Your task to perform on an android device: Open calendar and show me the fourth week of next month Image 0: 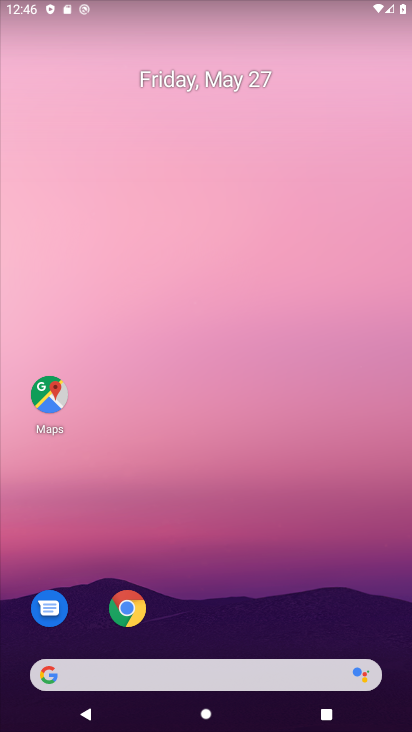
Step 0: drag from (282, 667) to (335, 460)
Your task to perform on an android device: Open calendar and show me the fourth week of next month Image 1: 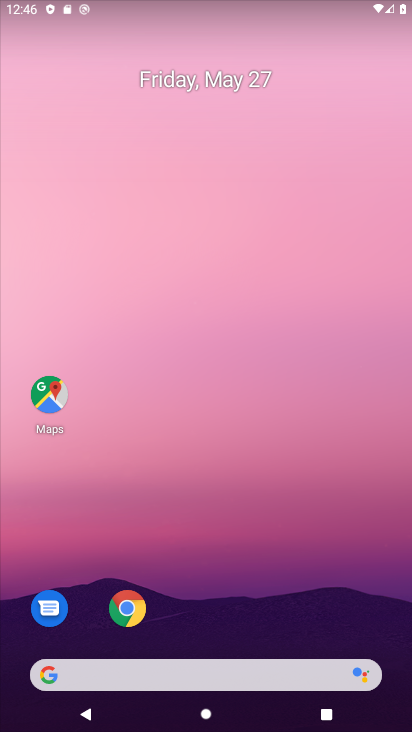
Step 1: drag from (213, 631) to (310, 163)
Your task to perform on an android device: Open calendar and show me the fourth week of next month Image 2: 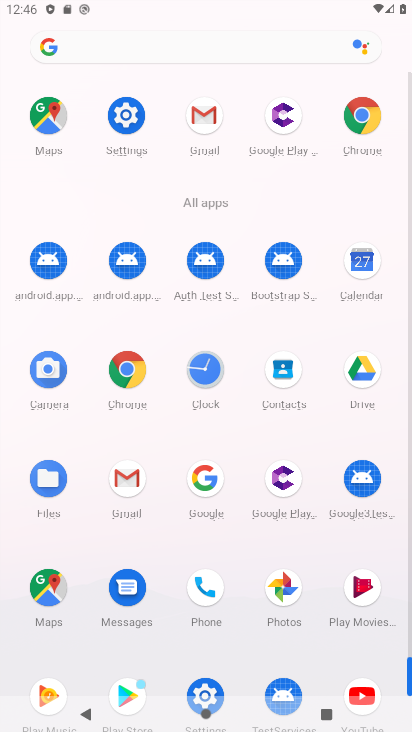
Step 2: click (370, 266)
Your task to perform on an android device: Open calendar and show me the fourth week of next month Image 3: 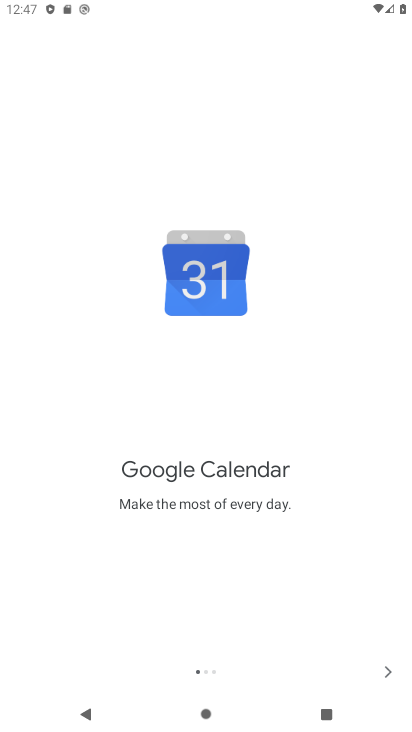
Step 3: click (381, 678)
Your task to perform on an android device: Open calendar and show me the fourth week of next month Image 4: 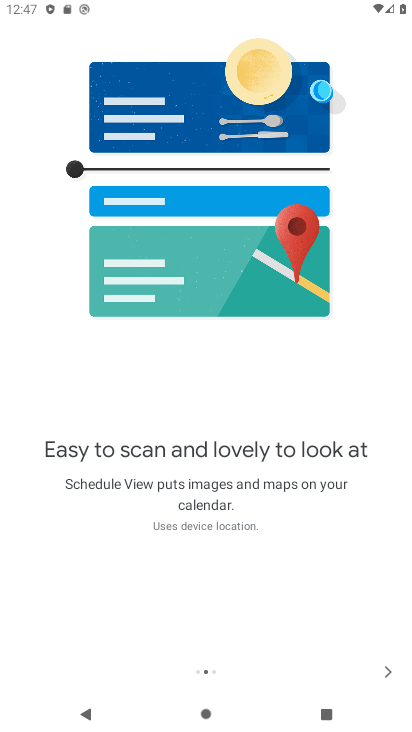
Step 4: click (381, 678)
Your task to perform on an android device: Open calendar and show me the fourth week of next month Image 5: 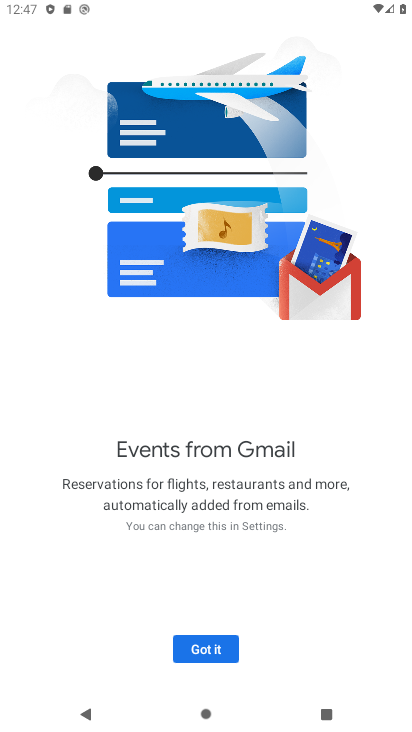
Step 5: click (226, 652)
Your task to perform on an android device: Open calendar and show me the fourth week of next month Image 6: 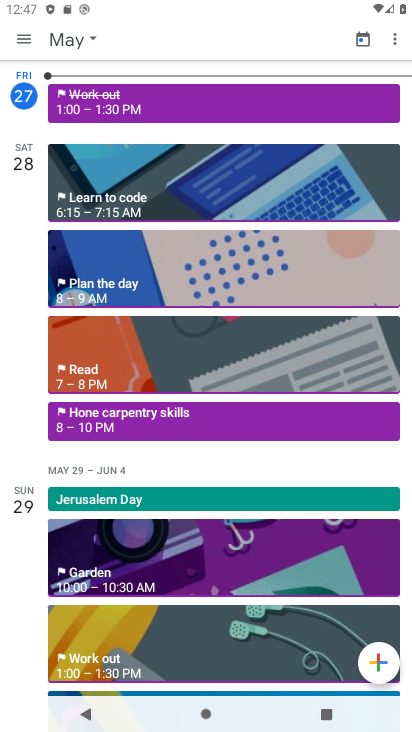
Step 6: click (87, 33)
Your task to perform on an android device: Open calendar and show me the fourth week of next month Image 7: 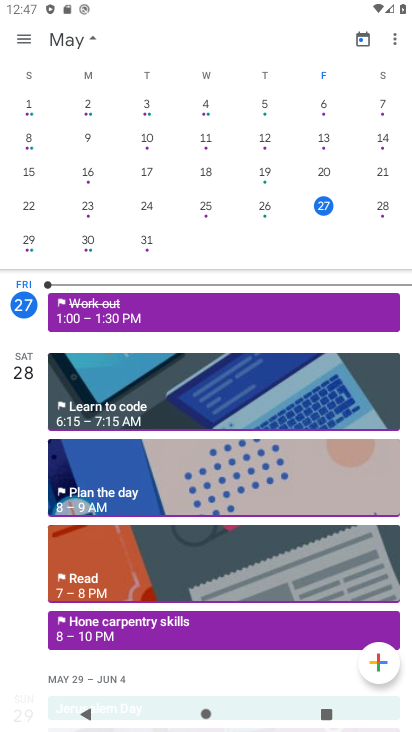
Step 7: drag from (74, 227) to (33, 221)
Your task to perform on an android device: Open calendar and show me the fourth week of next month Image 8: 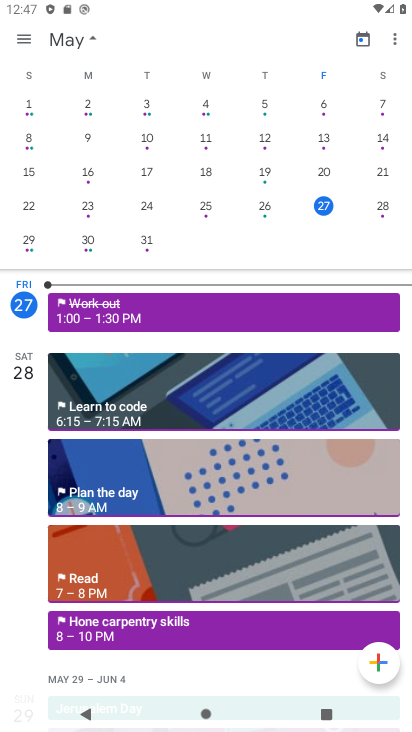
Step 8: drag from (378, 229) to (20, 236)
Your task to perform on an android device: Open calendar and show me the fourth week of next month Image 9: 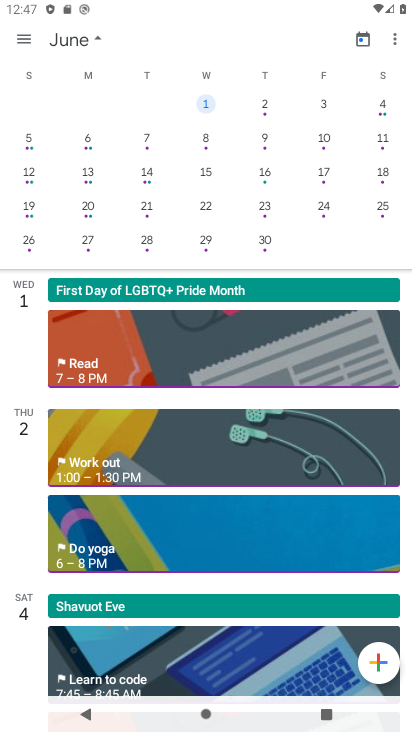
Step 9: click (33, 239)
Your task to perform on an android device: Open calendar and show me the fourth week of next month Image 10: 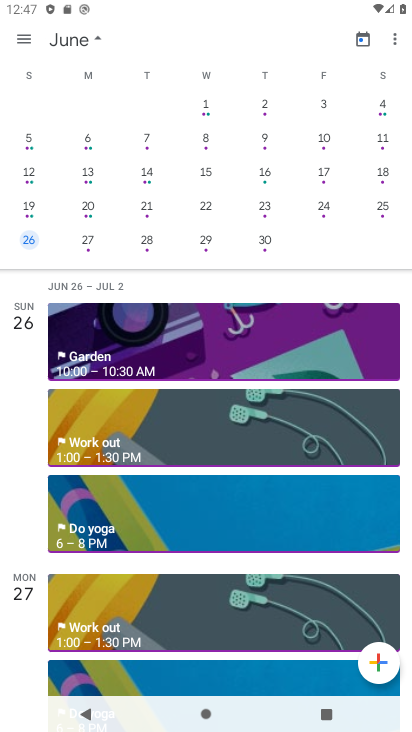
Step 10: click (27, 33)
Your task to perform on an android device: Open calendar and show me the fourth week of next month Image 11: 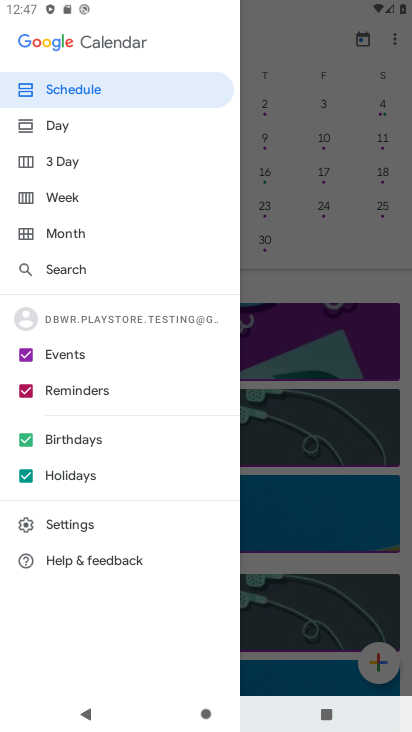
Step 11: click (98, 202)
Your task to perform on an android device: Open calendar and show me the fourth week of next month Image 12: 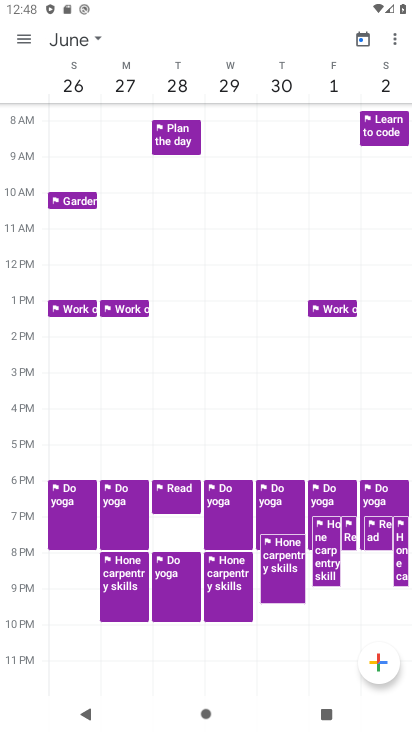
Step 12: task complete